Your task to perform on an android device: turn on wifi Image 0: 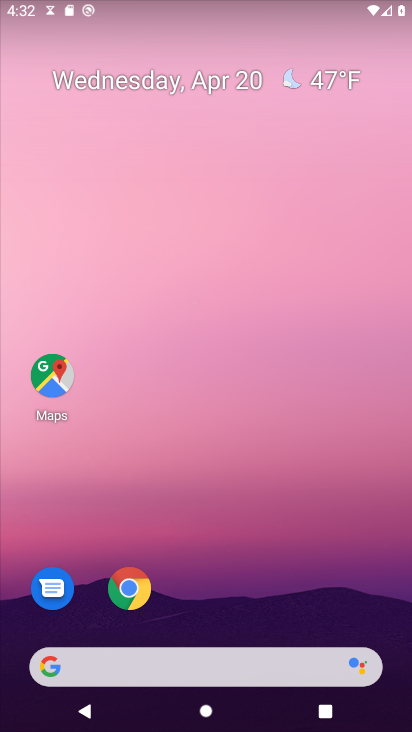
Step 0: drag from (264, 594) to (334, 43)
Your task to perform on an android device: turn on wifi Image 1: 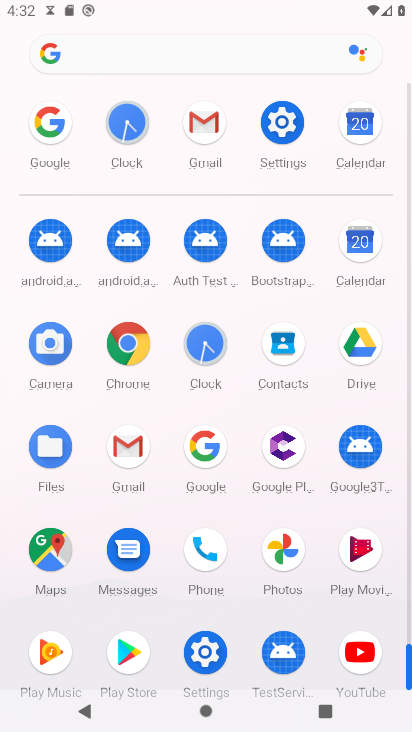
Step 1: click (282, 128)
Your task to perform on an android device: turn on wifi Image 2: 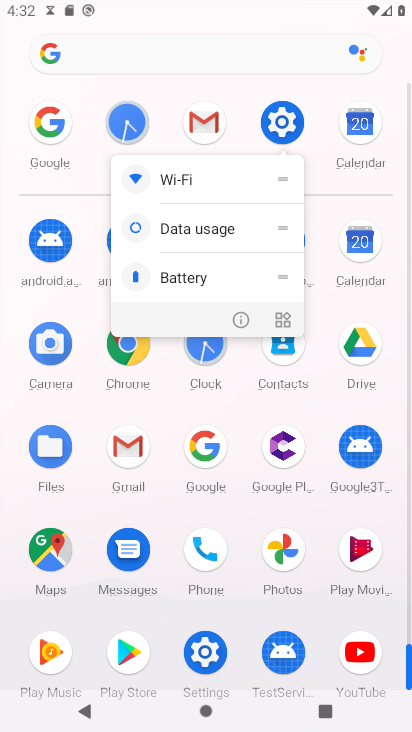
Step 2: click (282, 128)
Your task to perform on an android device: turn on wifi Image 3: 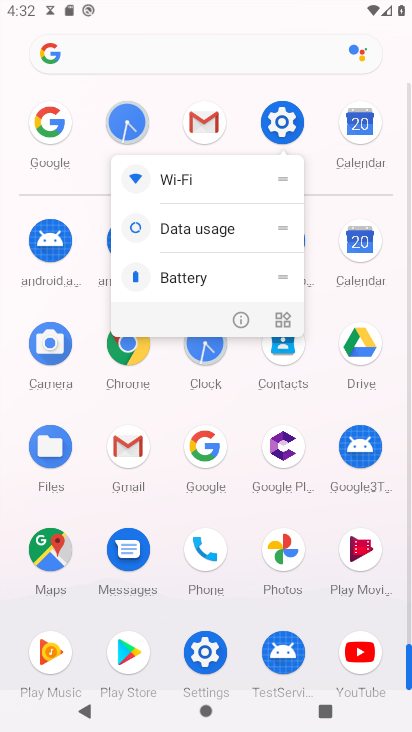
Step 3: click (282, 127)
Your task to perform on an android device: turn on wifi Image 4: 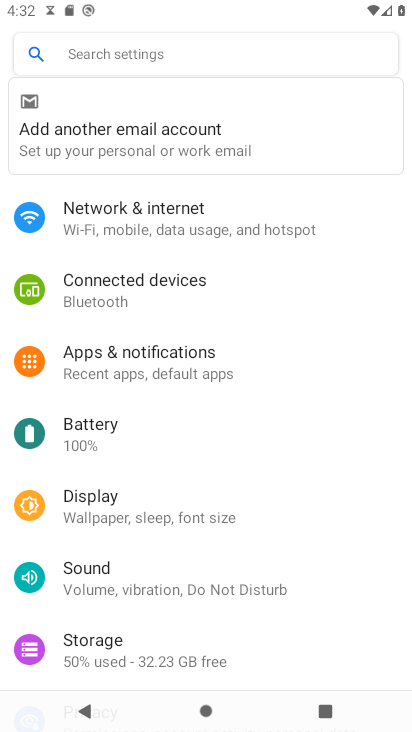
Step 4: click (171, 220)
Your task to perform on an android device: turn on wifi Image 5: 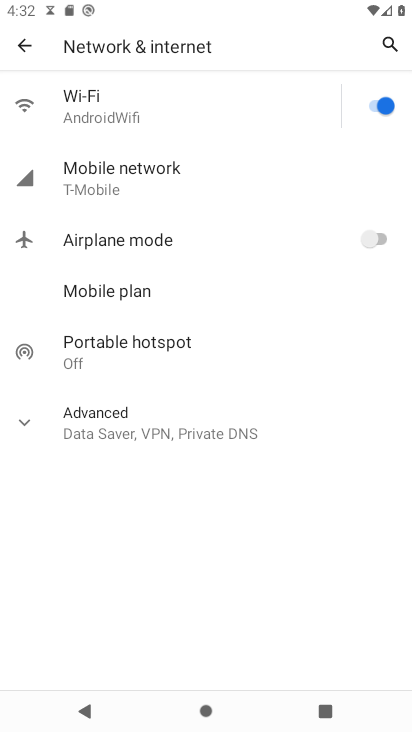
Step 5: click (65, 113)
Your task to perform on an android device: turn on wifi Image 6: 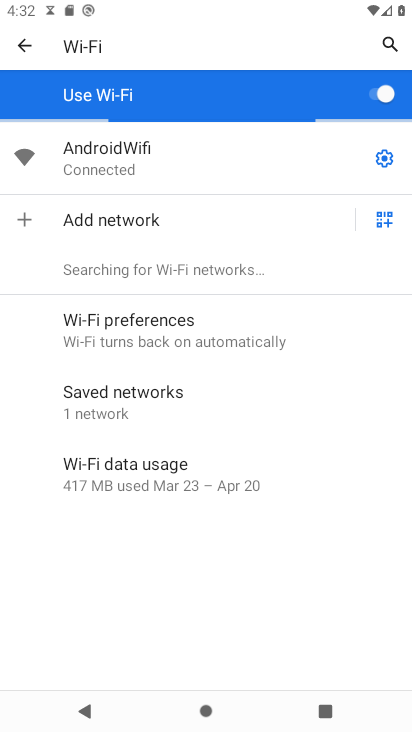
Step 6: task complete